Your task to perform on an android device: turn on wifi Image 0: 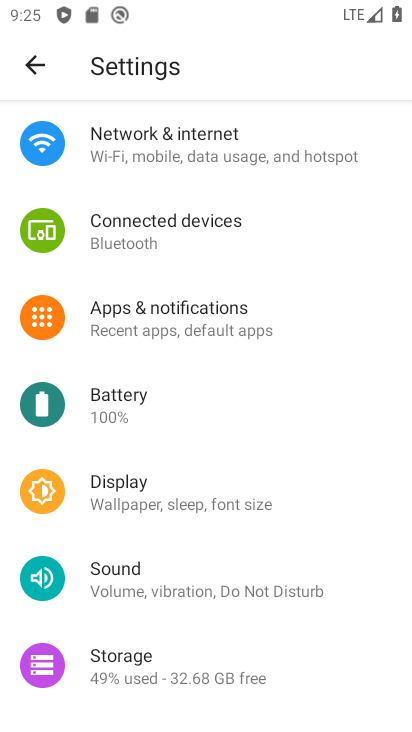
Step 0: click (227, 167)
Your task to perform on an android device: turn on wifi Image 1: 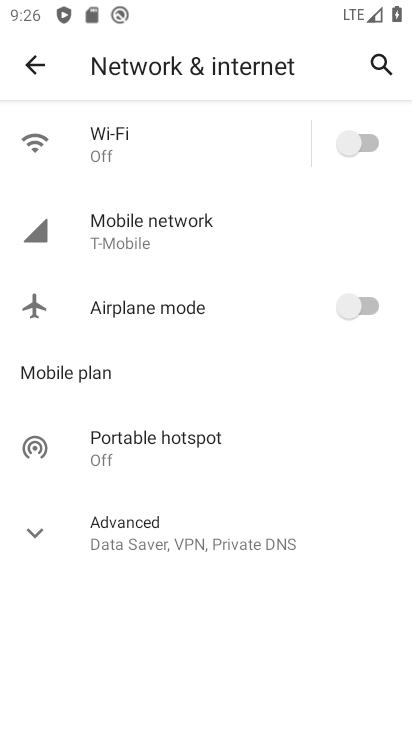
Step 1: click (362, 136)
Your task to perform on an android device: turn on wifi Image 2: 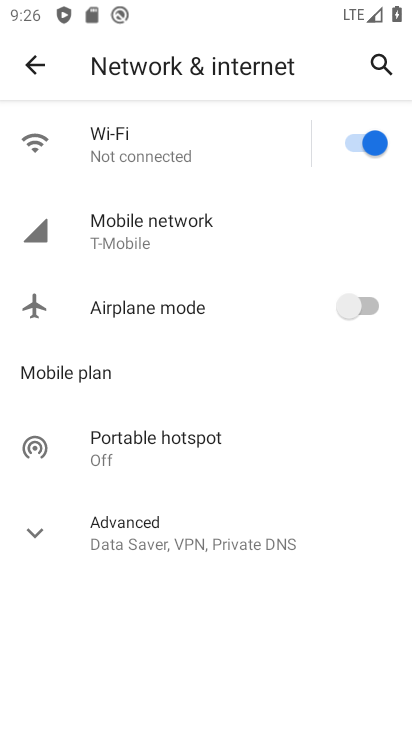
Step 2: task complete